Your task to perform on an android device: Clear all items from cart on ebay. Add "razer blade" to the cart on ebay Image 0: 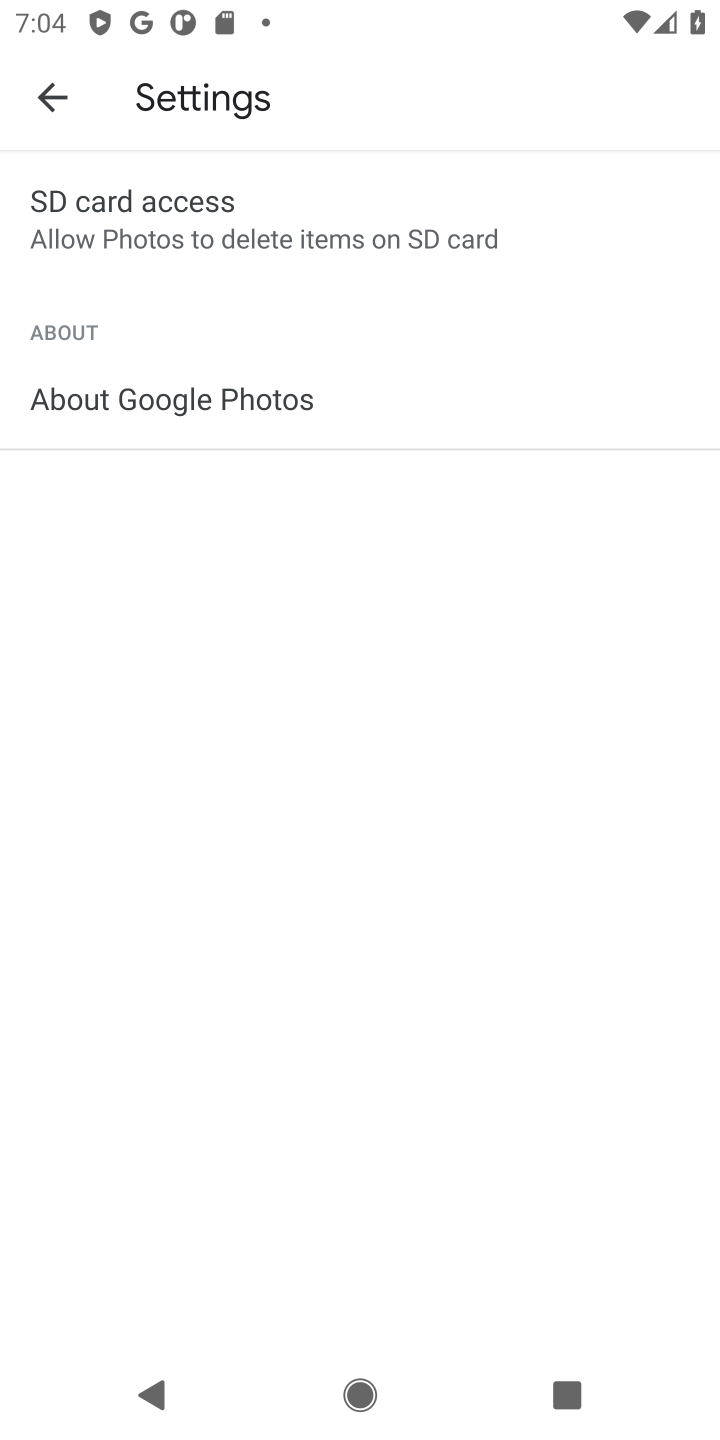
Step 0: press home button
Your task to perform on an android device: Clear all items from cart on ebay. Add "razer blade" to the cart on ebay Image 1: 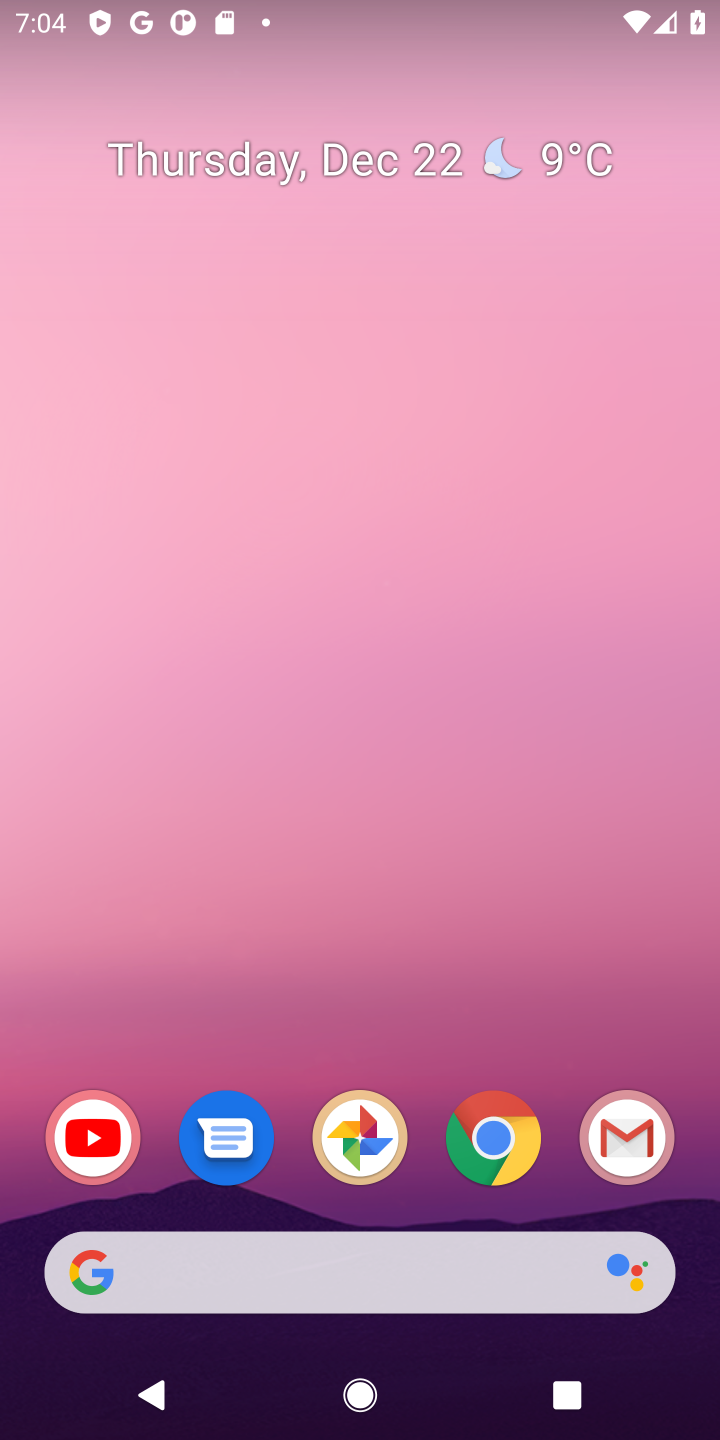
Step 1: click (476, 1156)
Your task to perform on an android device: Clear all items from cart on ebay. Add "razer blade" to the cart on ebay Image 2: 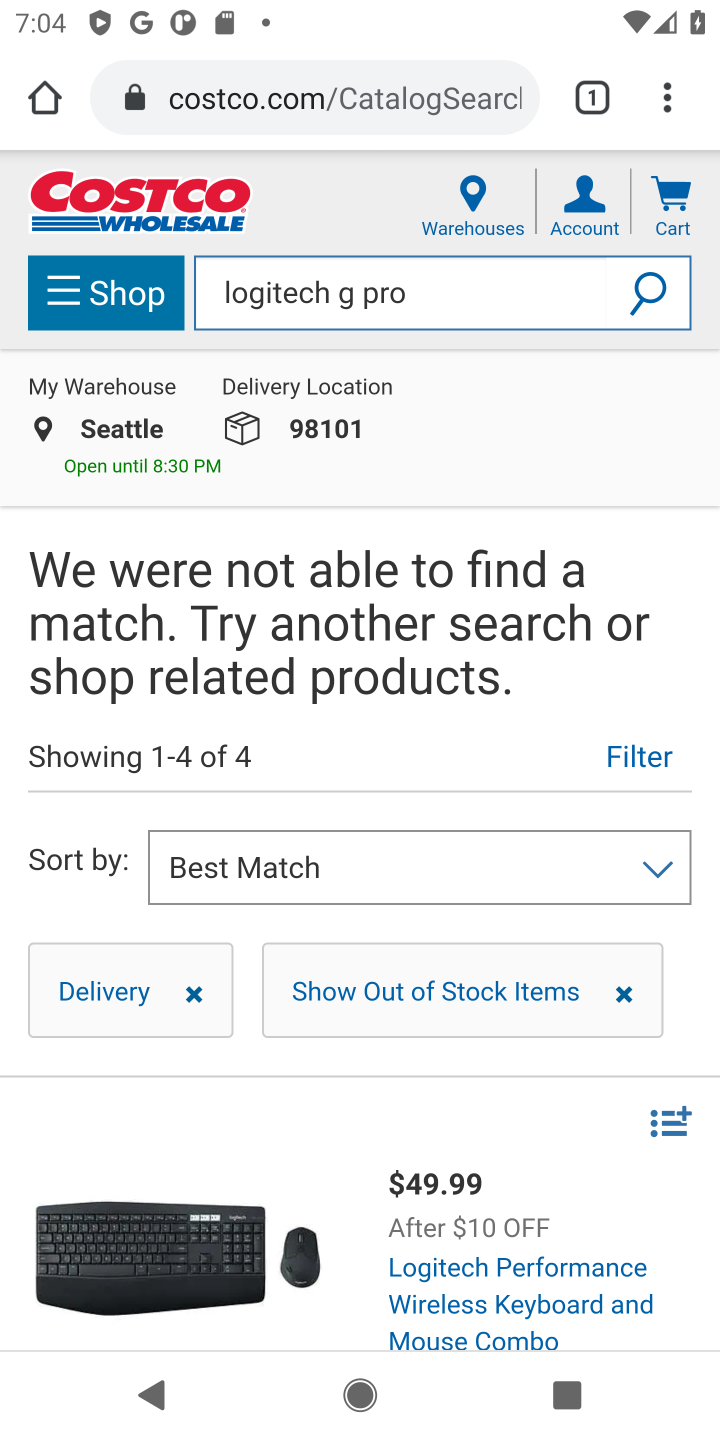
Step 2: click (459, 97)
Your task to perform on an android device: Clear all items from cart on ebay. Add "razer blade" to the cart on ebay Image 3: 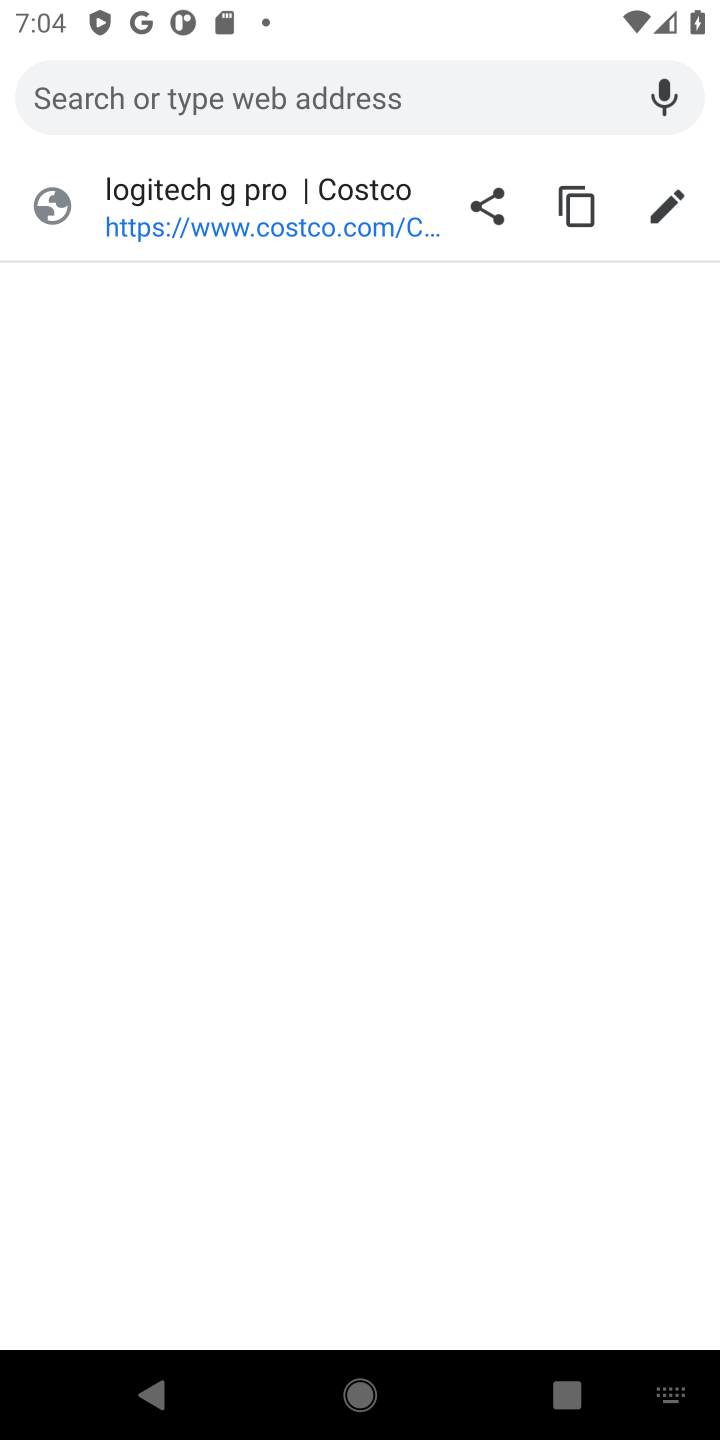
Step 3: type "ebay"
Your task to perform on an android device: Clear all items from cart on ebay. Add "razer blade" to the cart on ebay Image 4: 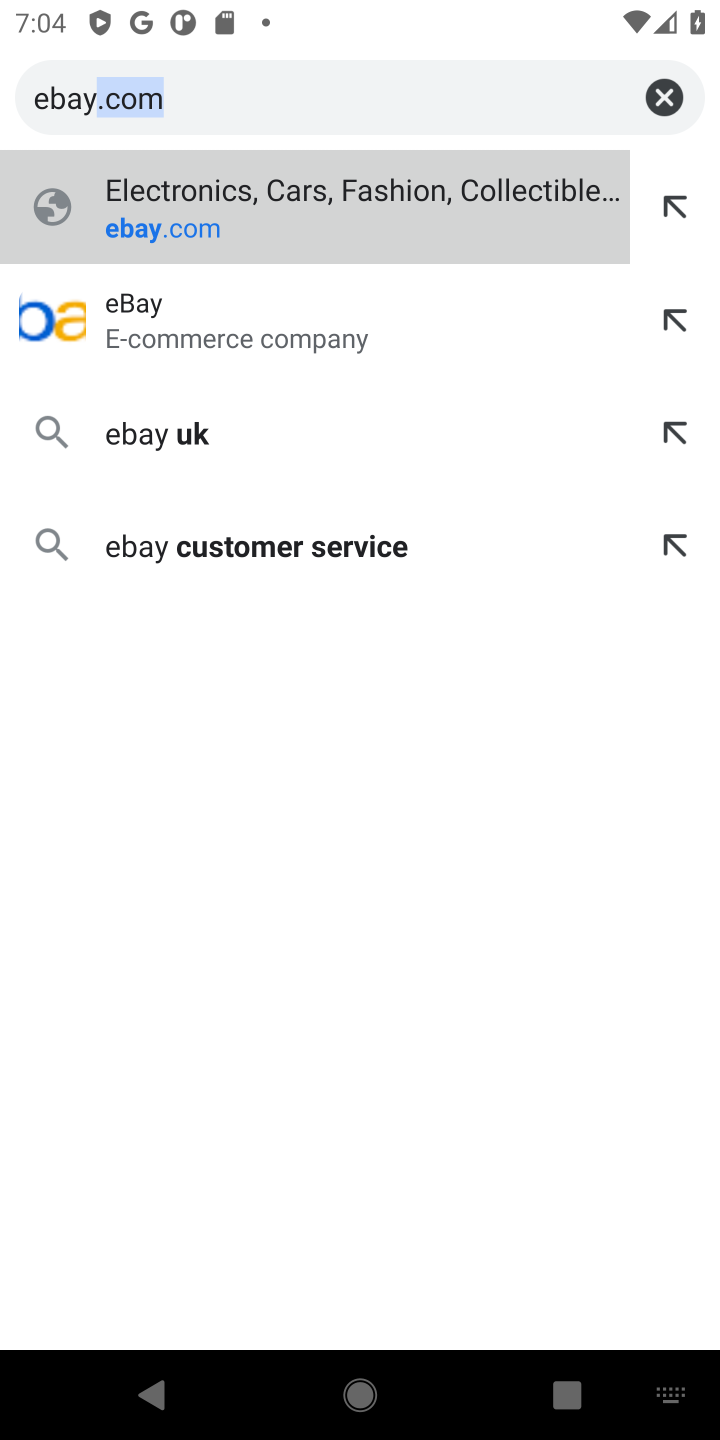
Step 4: click (302, 328)
Your task to perform on an android device: Clear all items from cart on ebay. Add "razer blade" to the cart on ebay Image 5: 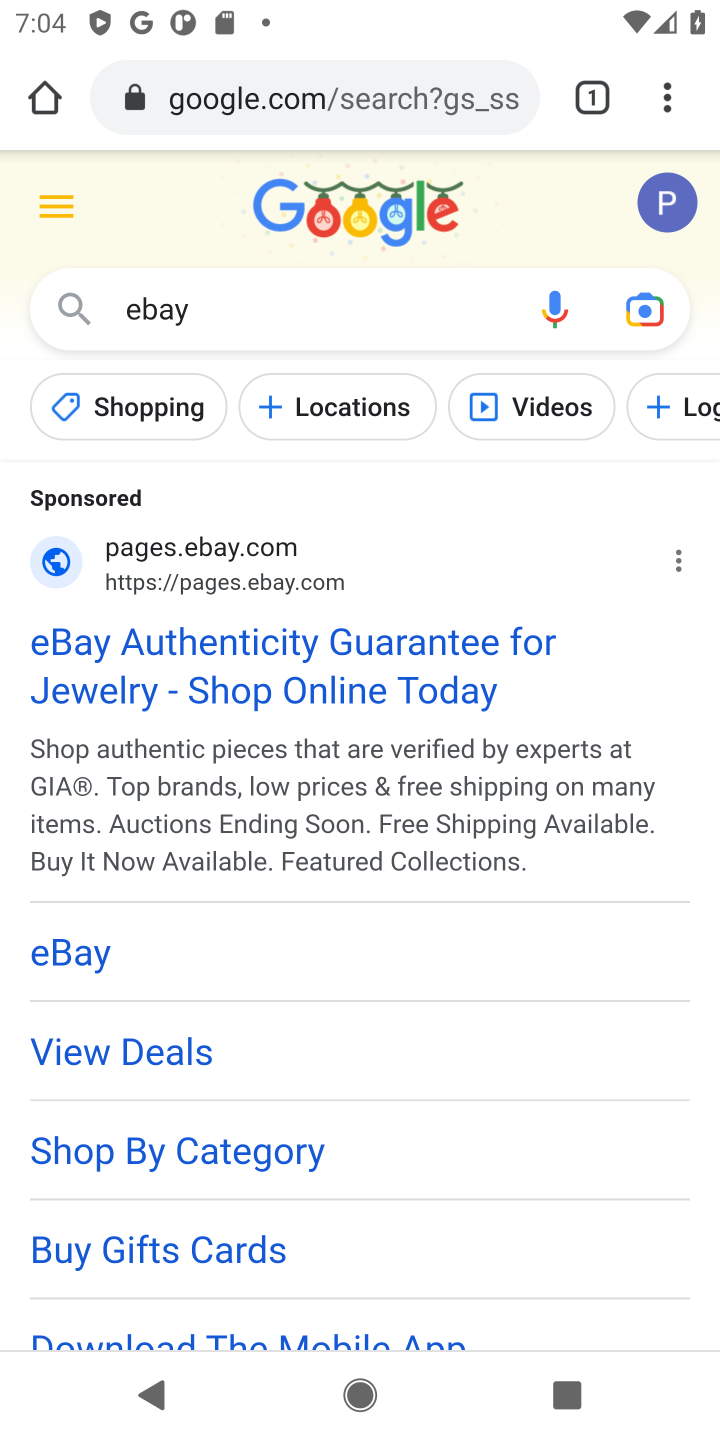
Step 5: click (266, 542)
Your task to perform on an android device: Clear all items from cart on ebay. Add "razer blade" to the cart on ebay Image 6: 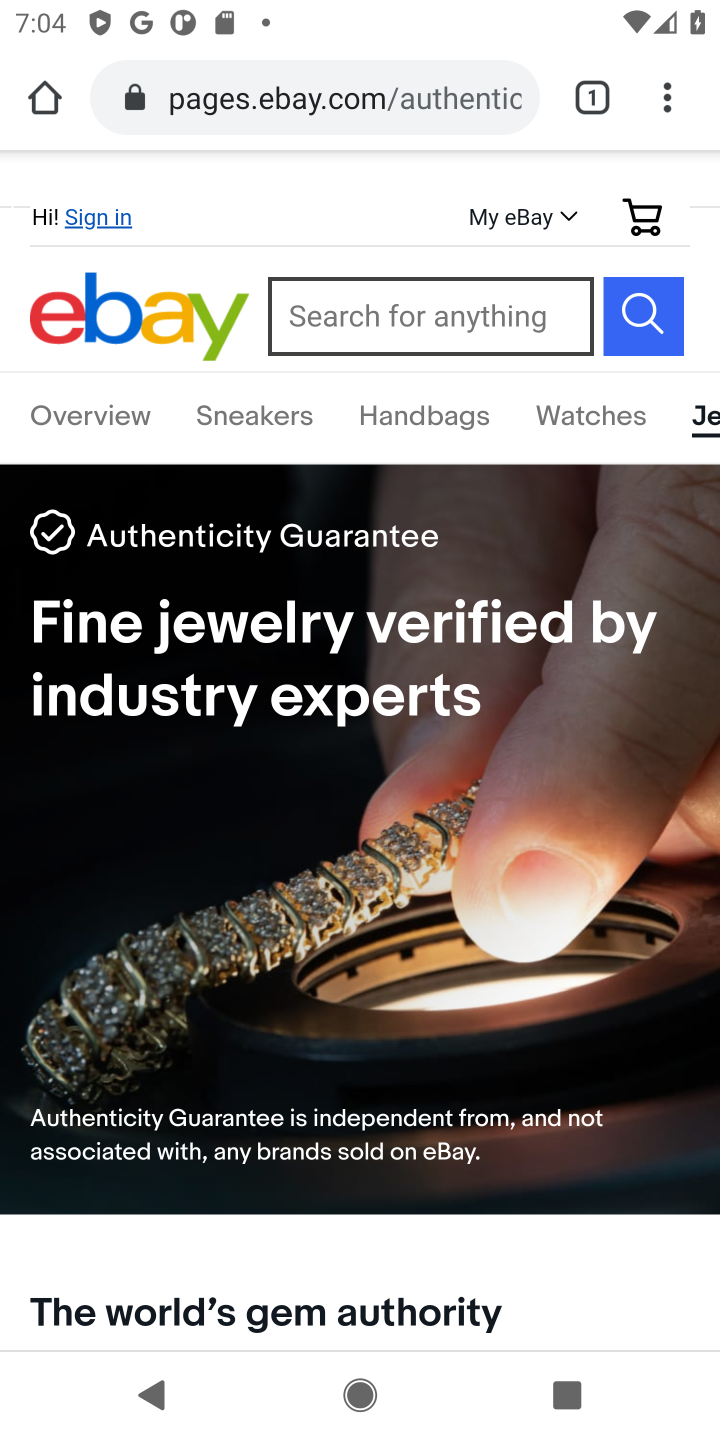
Step 6: click (649, 224)
Your task to perform on an android device: Clear all items from cart on ebay. Add "razer blade" to the cart on ebay Image 7: 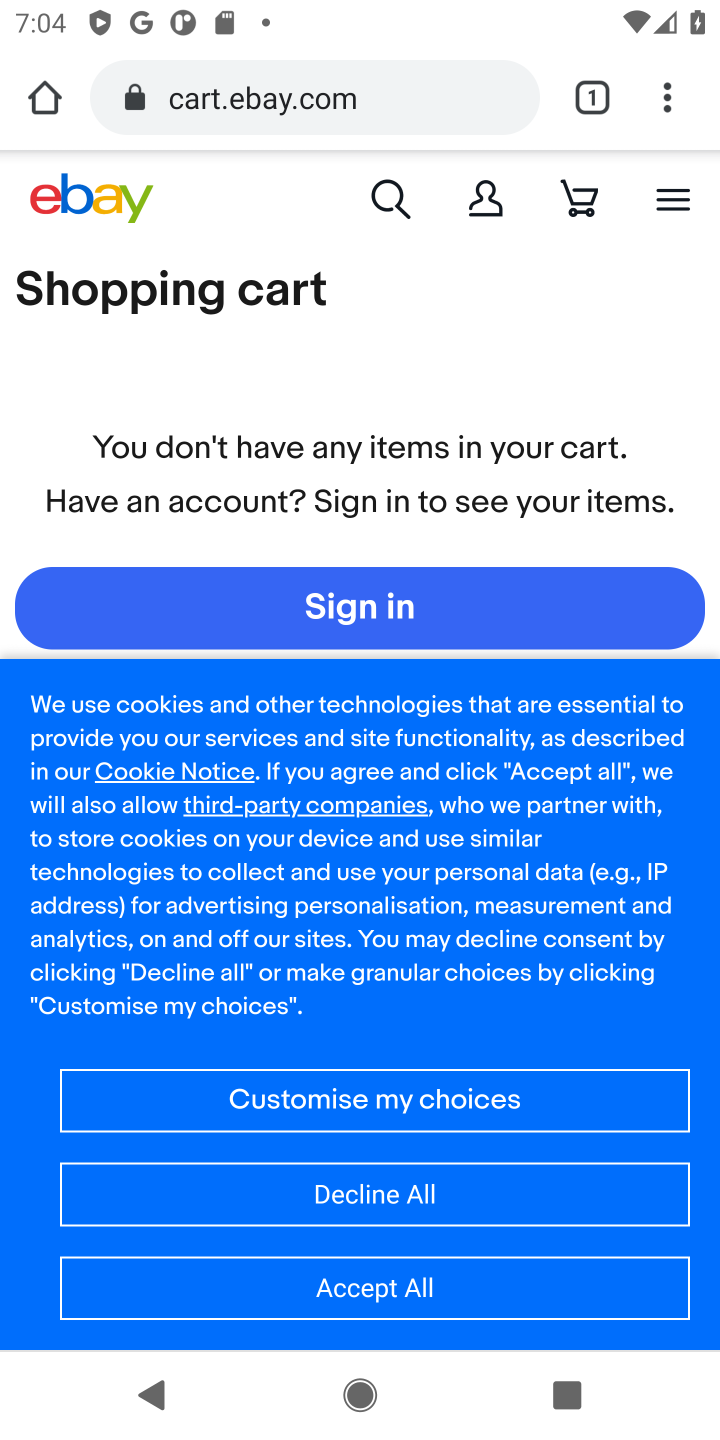
Step 7: click (711, 1427)
Your task to perform on an android device: Clear all items from cart on ebay. Add "razer blade" to the cart on ebay Image 8: 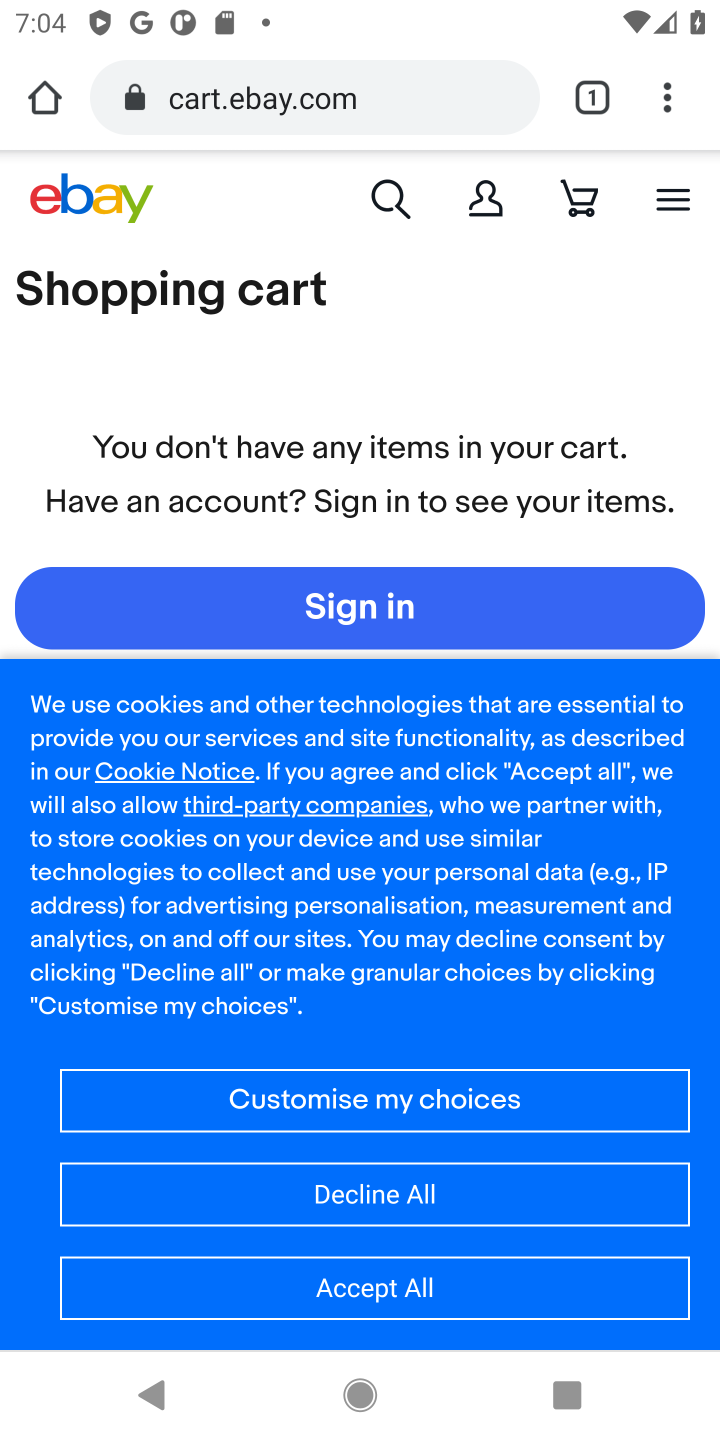
Step 8: click (392, 193)
Your task to perform on an android device: Clear all items from cart on ebay. Add "razer blade" to the cart on ebay Image 9: 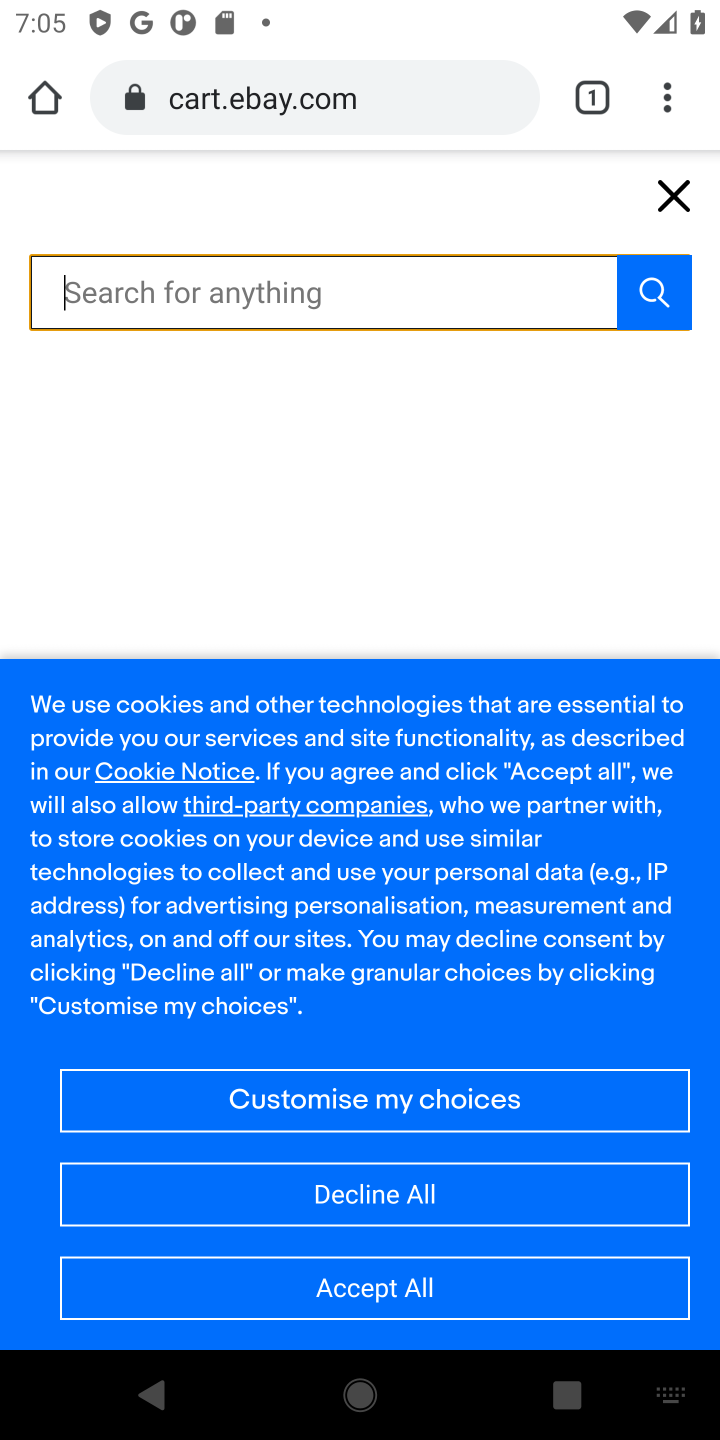
Step 9: click (393, 293)
Your task to perform on an android device: Clear all items from cart on ebay. Add "razer blade" to the cart on ebay Image 10: 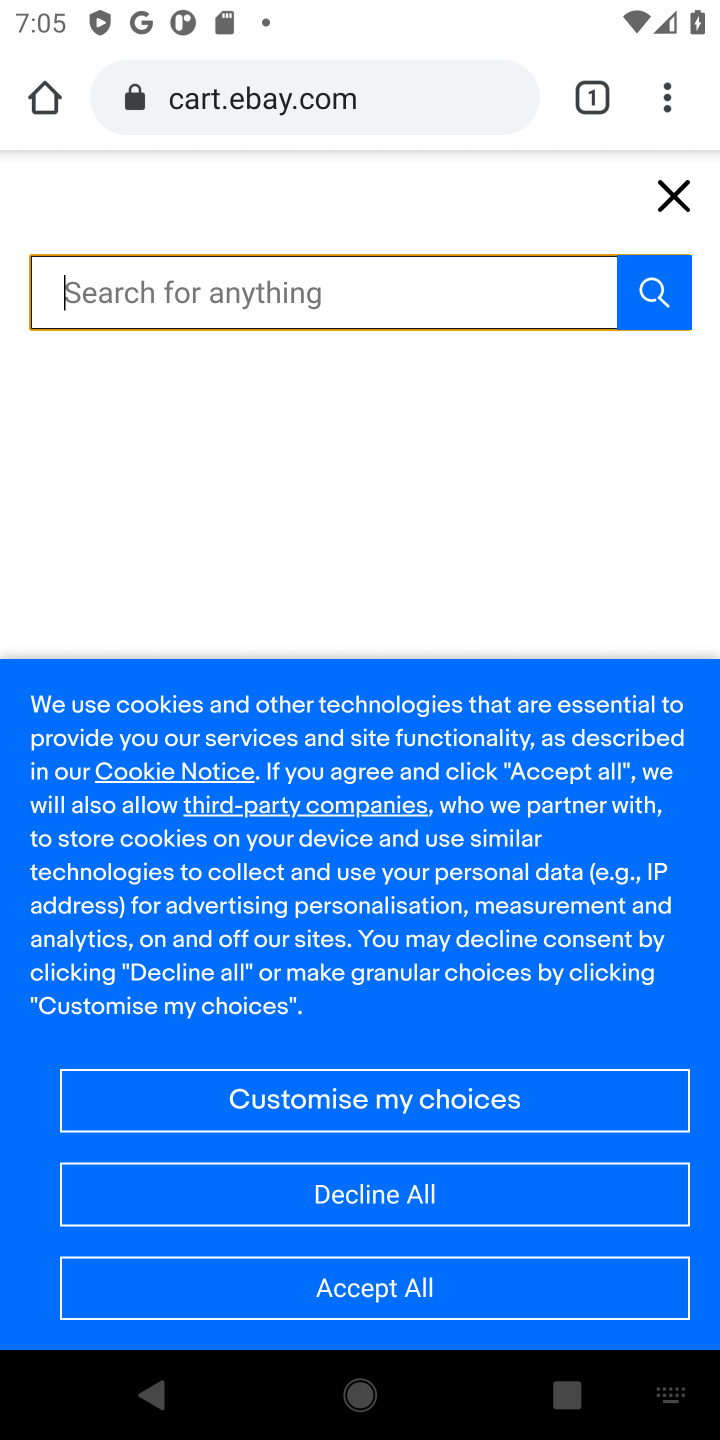
Step 10: type "razer blade"
Your task to perform on an android device: Clear all items from cart on ebay. Add "razer blade" to the cart on ebay Image 11: 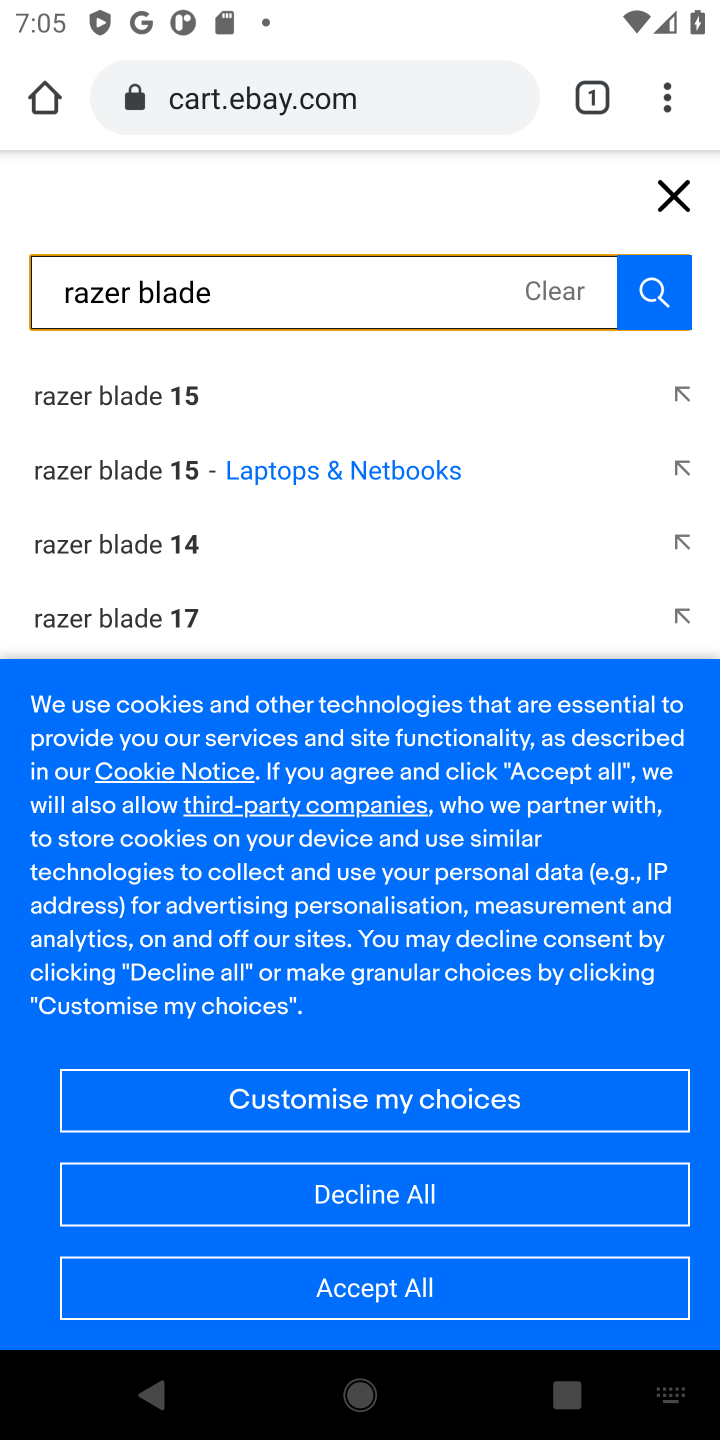
Step 11: click (678, 277)
Your task to perform on an android device: Clear all items from cart on ebay. Add "razer blade" to the cart on ebay Image 12: 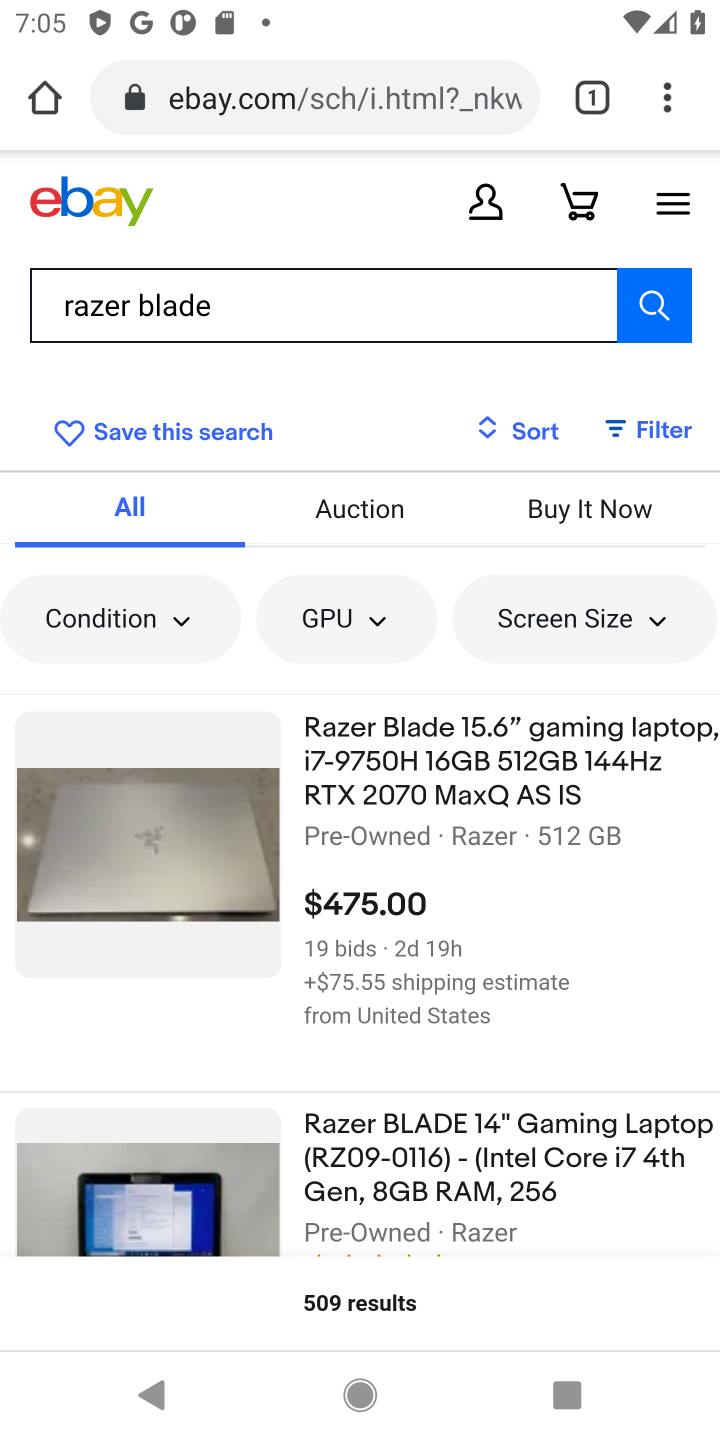
Step 12: click (145, 817)
Your task to perform on an android device: Clear all items from cart on ebay. Add "razer blade" to the cart on ebay Image 13: 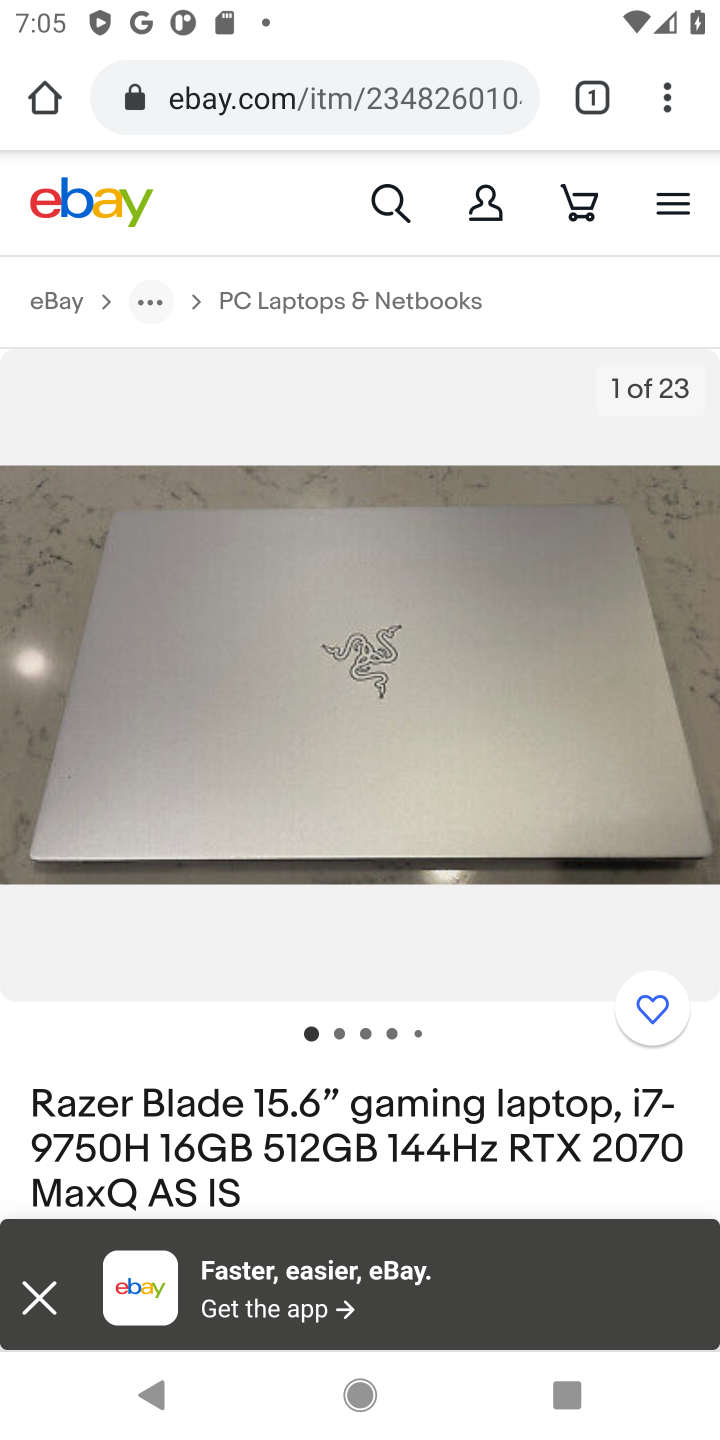
Step 13: drag from (229, 1146) to (264, 343)
Your task to perform on an android device: Clear all items from cart on ebay. Add "razer blade" to the cart on ebay Image 14: 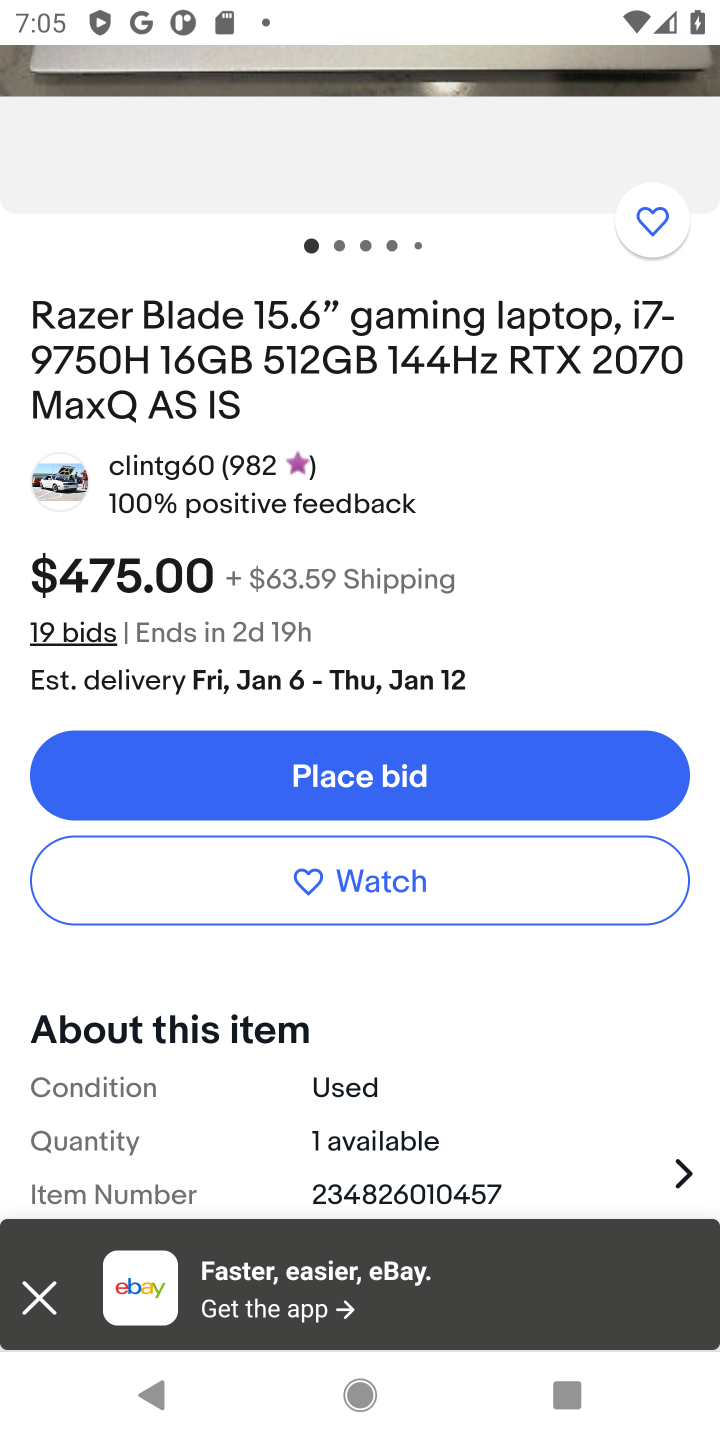
Step 14: press back button
Your task to perform on an android device: Clear all items from cart on ebay. Add "razer blade" to the cart on ebay Image 15: 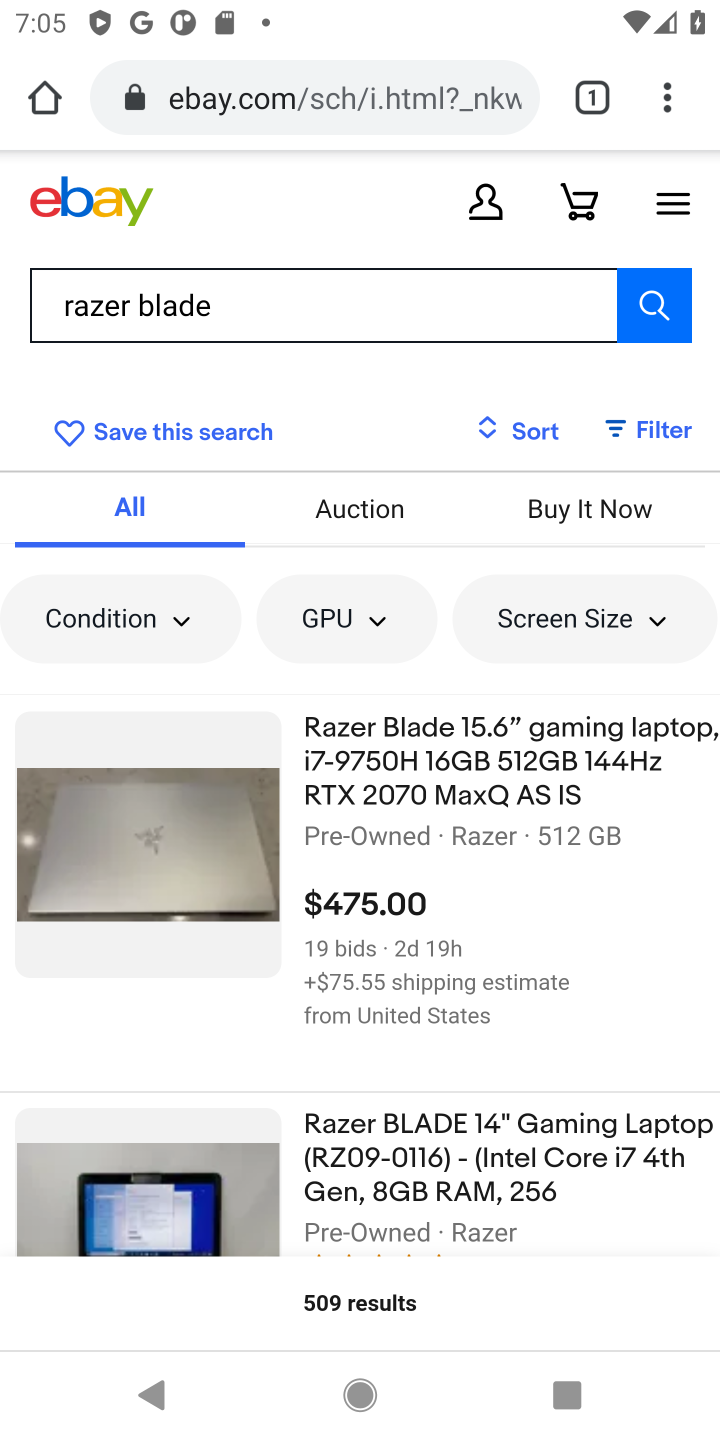
Step 15: click (186, 1191)
Your task to perform on an android device: Clear all items from cart on ebay. Add "razer blade" to the cart on ebay Image 16: 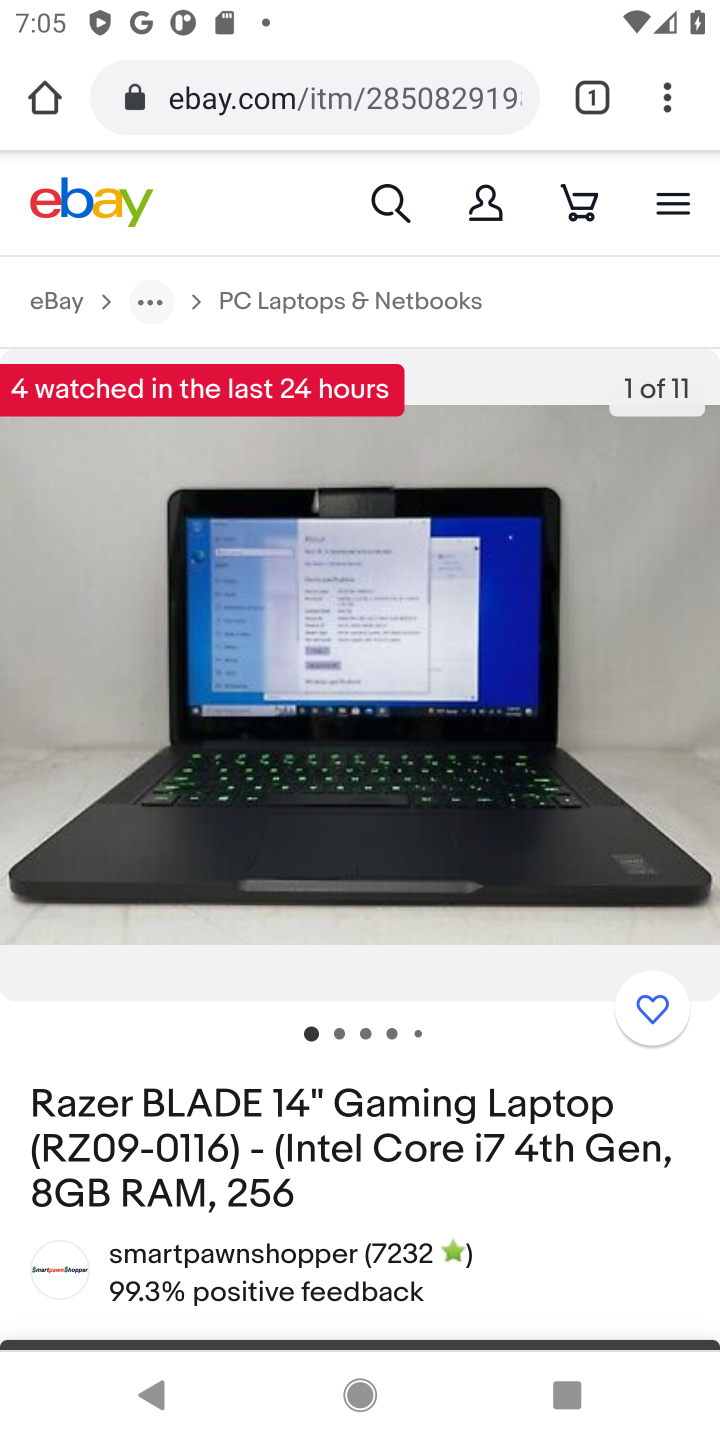
Step 16: drag from (193, 1192) to (369, 277)
Your task to perform on an android device: Clear all items from cart on ebay. Add "razer blade" to the cart on ebay Image 17: 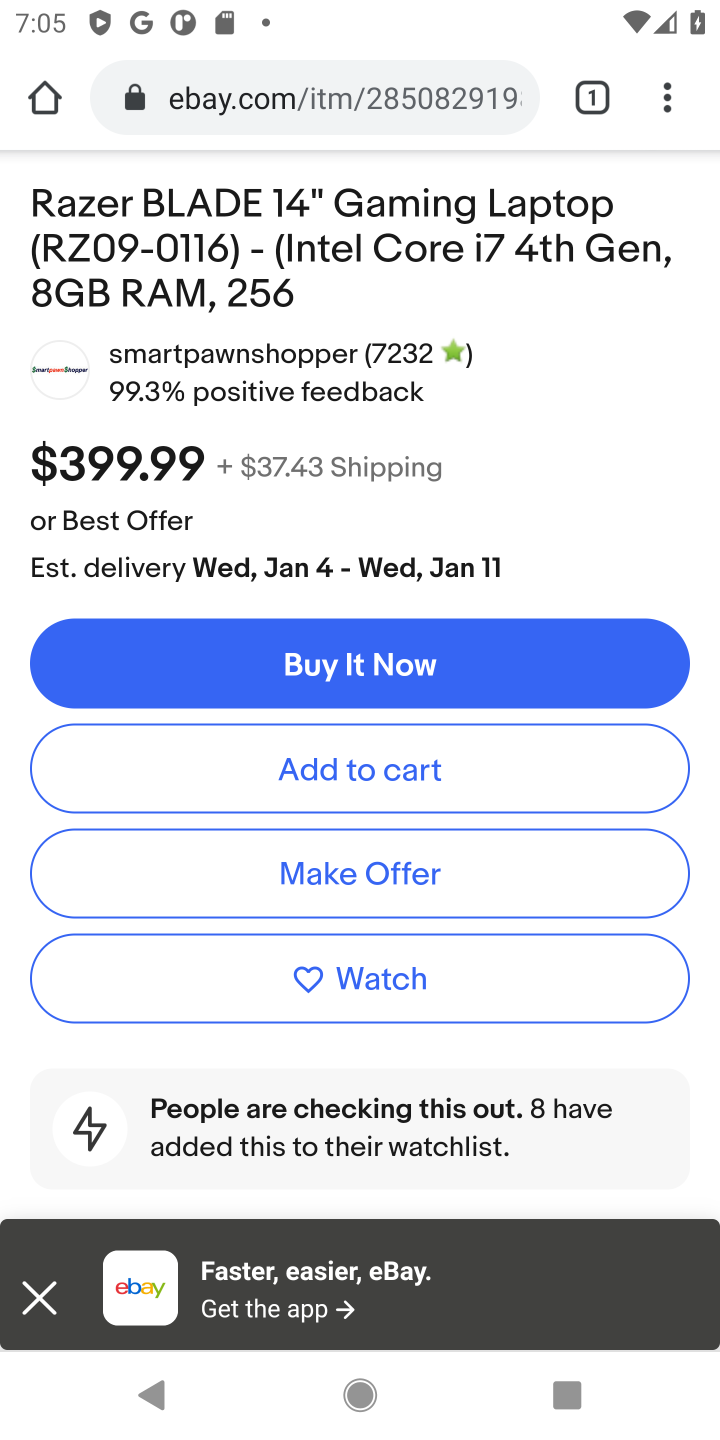
Step 17: click (295, 769)
Your task to perform on an android device: Clear all items from cart on ebay. Add "razer blade" to the cart on ebay Image 18: 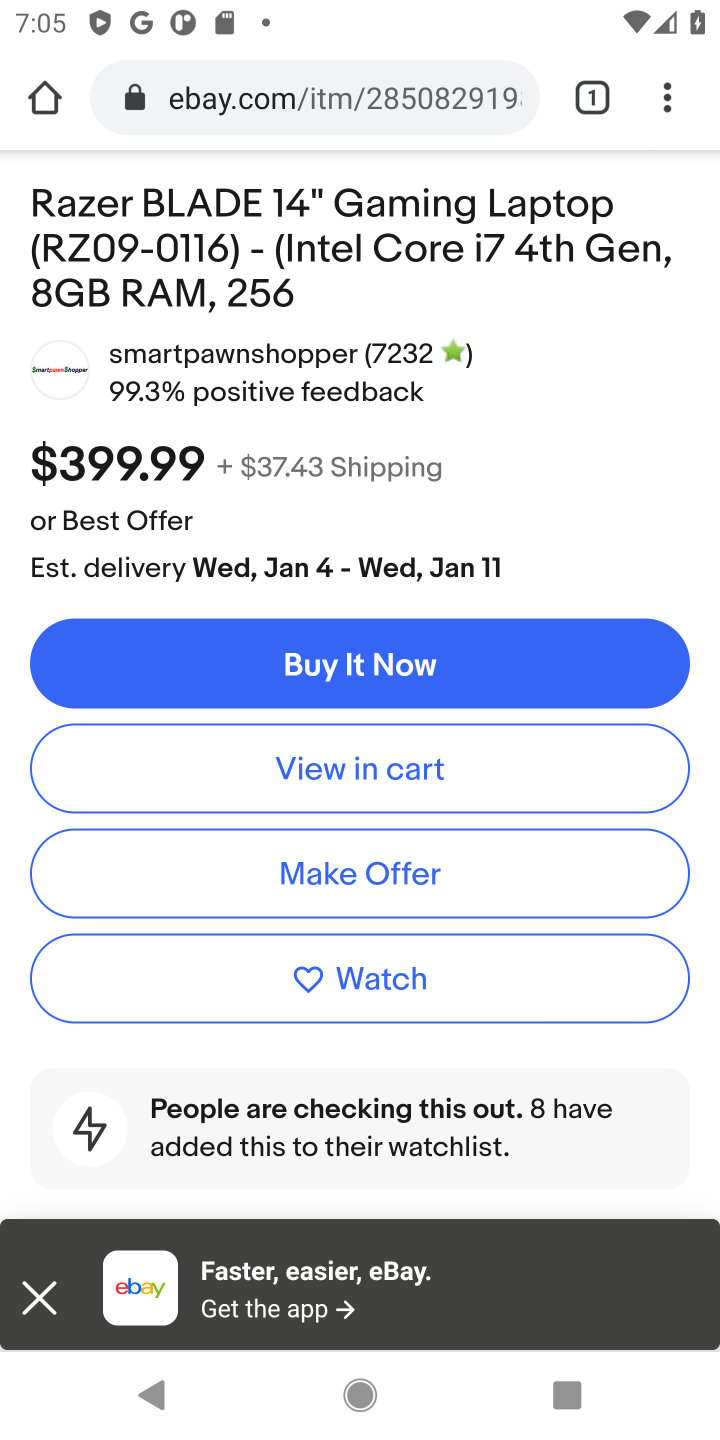
Step 18: click (602, 760)
Your task to perform on an android device: Clear all items from cart on ebay. Add "razer blade" to the cart on ebay Image 19: 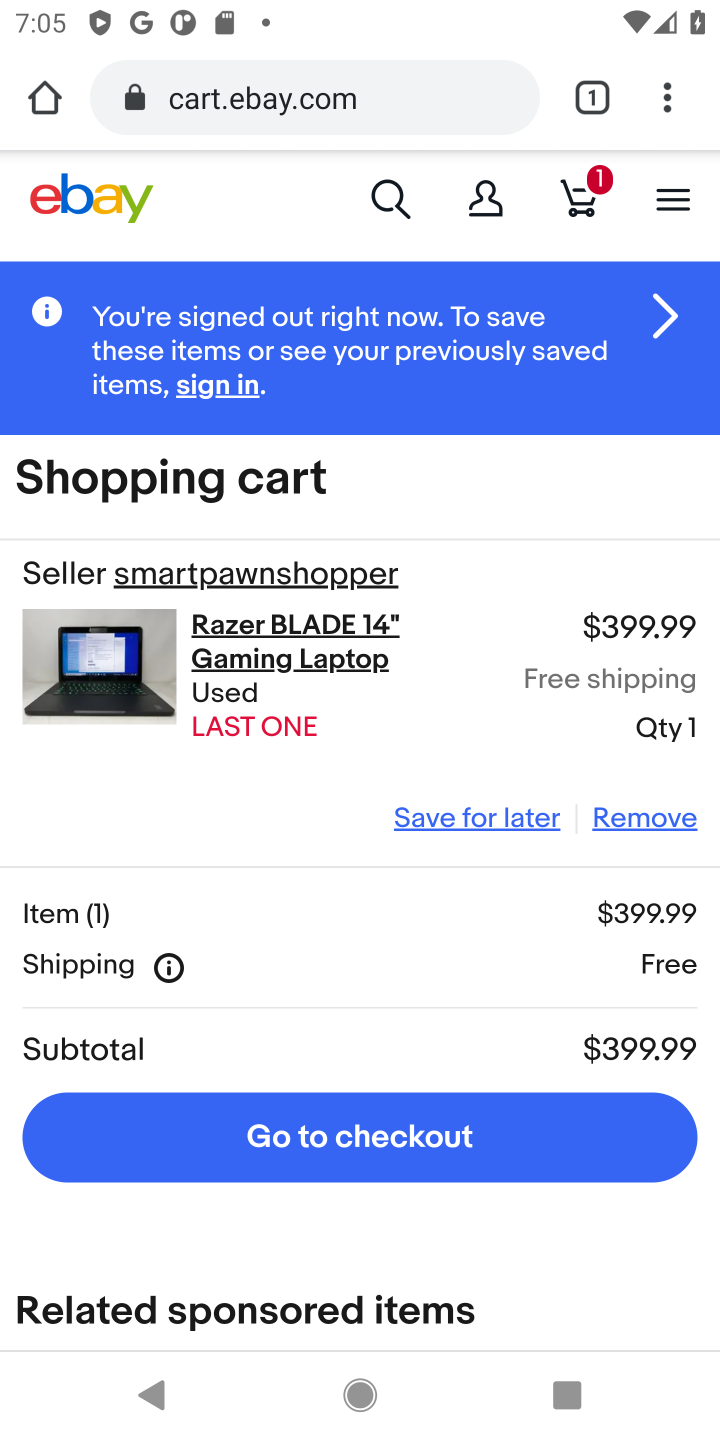
Step 19: task complete